Your task to perform on an android device: Open calendar and show me the third week of next month Image 0: 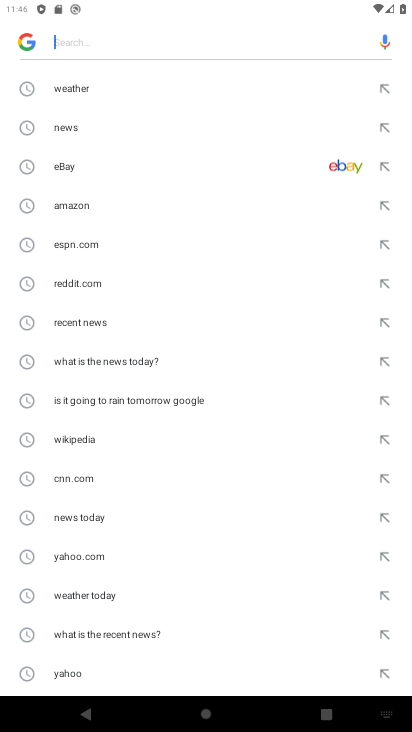
Step 0: press home button
Your task to perform on an android device: Open calendar and show me the third week of next month Image 1: 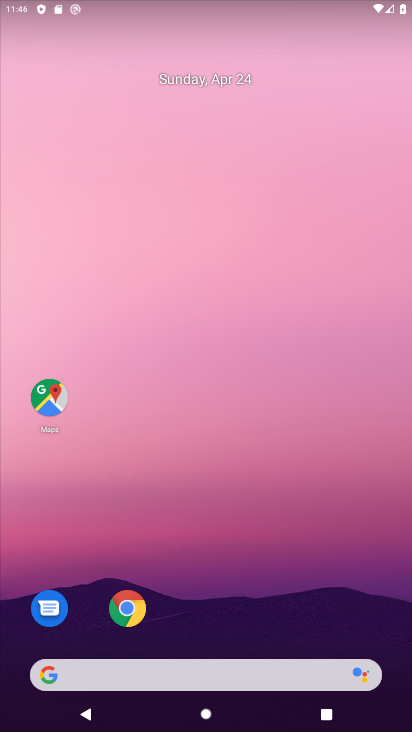
Step 1: drag from (222, 725) to (215, 3)
Your task to perform on an android device: Open calendar and show me the third week of next month Image 2: 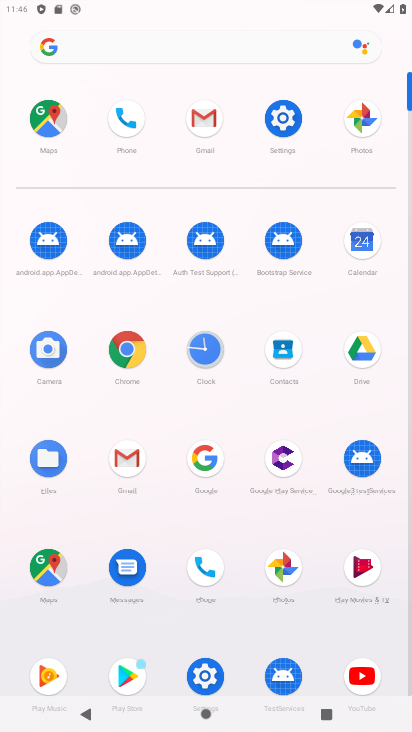
Step 2: click (359, 241)
Your task to perform on an android device: Open calendar and show me the third week of next month Image 3: 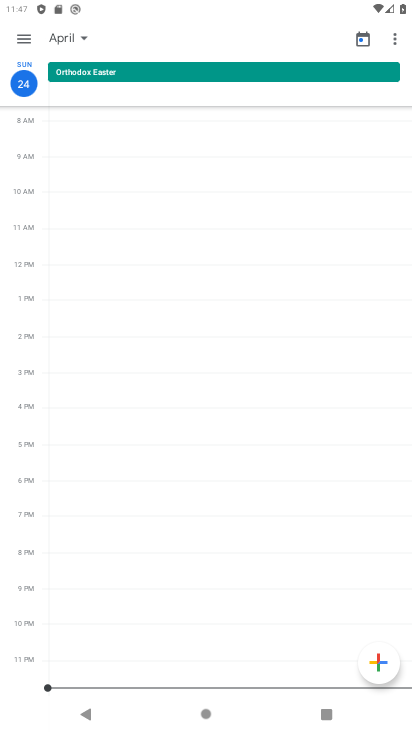
Step 3: click (65, 38)
Your task to perform on an android device: Open calendar and show me the third week of next month Image 4: 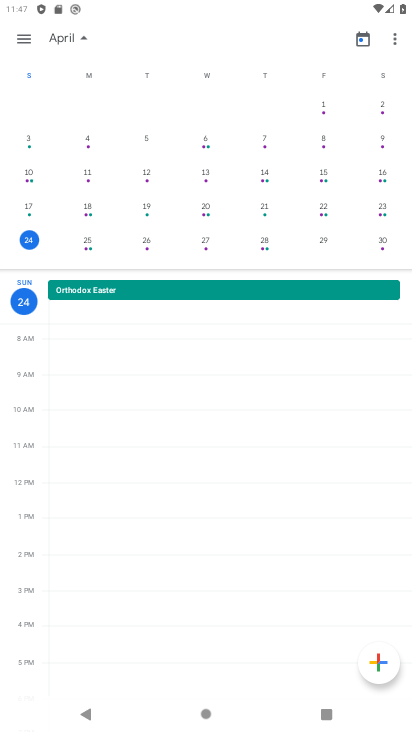
Step 4: drag from (378, 212) to (17, 166)
Your task to perform on an android device: Open calendar and show me the third week of next month Image 5: 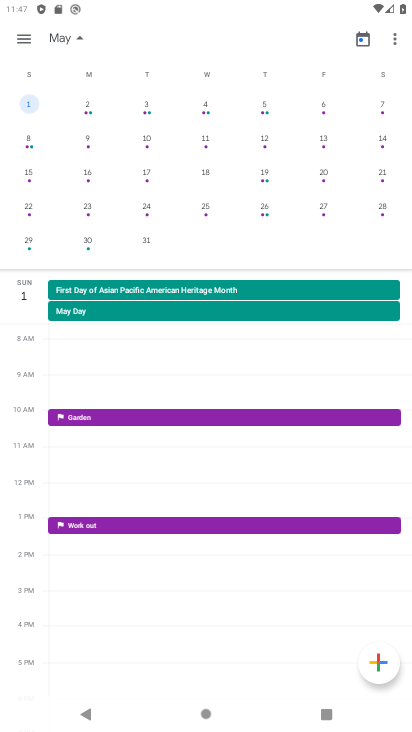
Step 5: click (88, 171)
Your task to perform on an android device: Open calendar and show me the third week of next month Image 6: 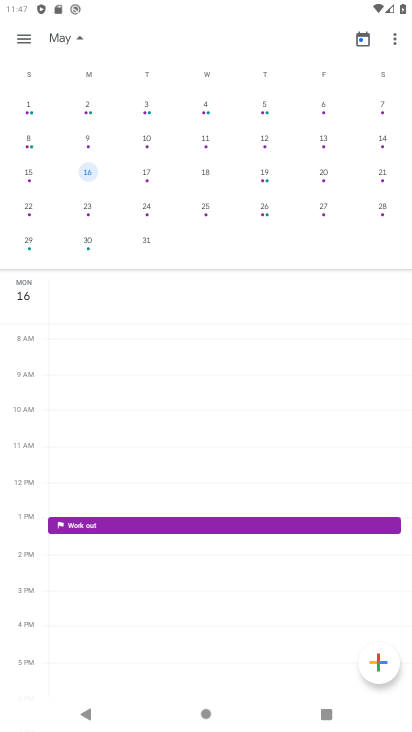
Step 6: task complete